Your task to perform on an android device: change notification settings in the gmail app Image 0: 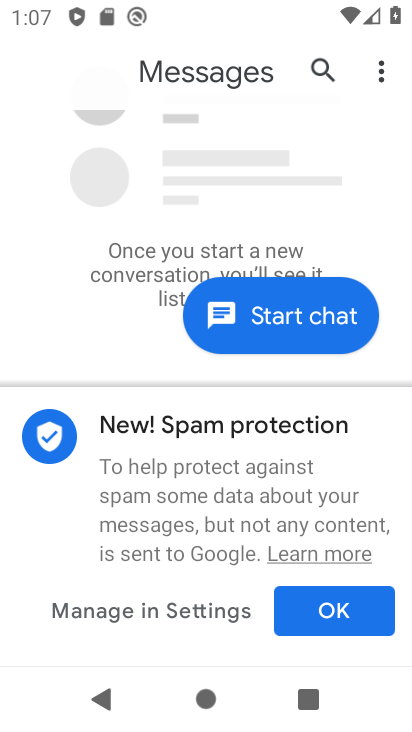
Step 0: press home button
Your task to perform on an android device: change notification settings in the gmail app Image 1: 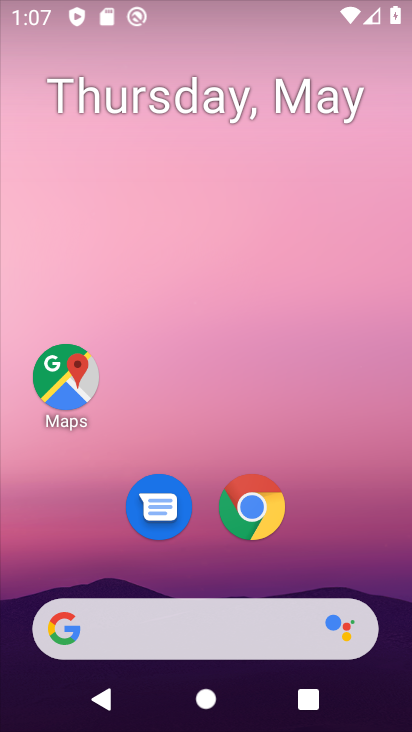
Step 1: drag from (306, 421) to (310, 229)
Your task to perform on an android device: change notification settings in the gmail app Image 2: 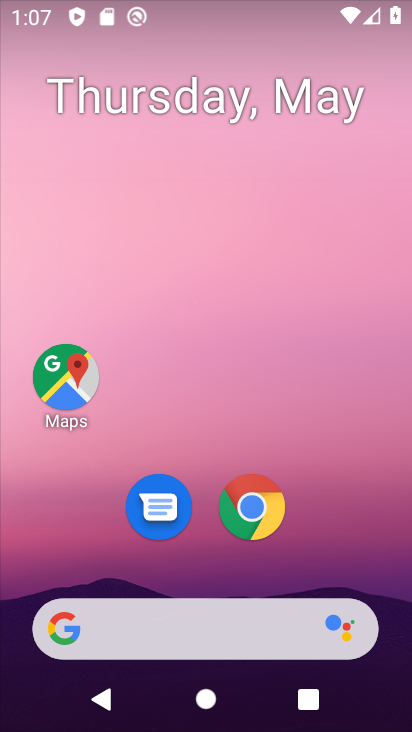
Step 2: drag from (315, 457) to (314, 185)
Your task to perform on an android device: change notification settings in the gmail app Image 3: 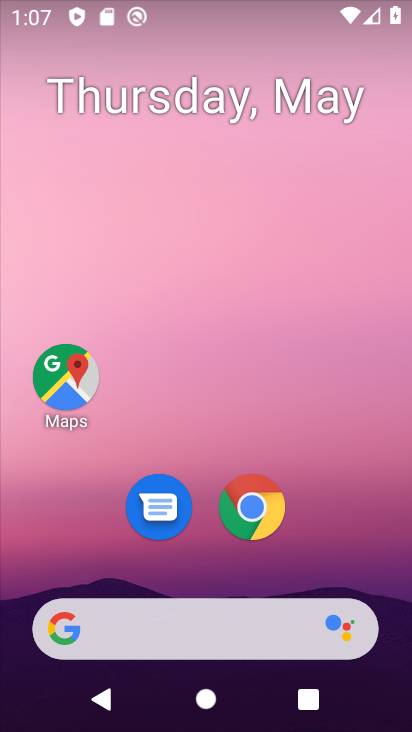
Step 3: drag from (248, 596) to (309, 48)
Your task to perform on an android device: change notification settings in the gmail app Image 4: 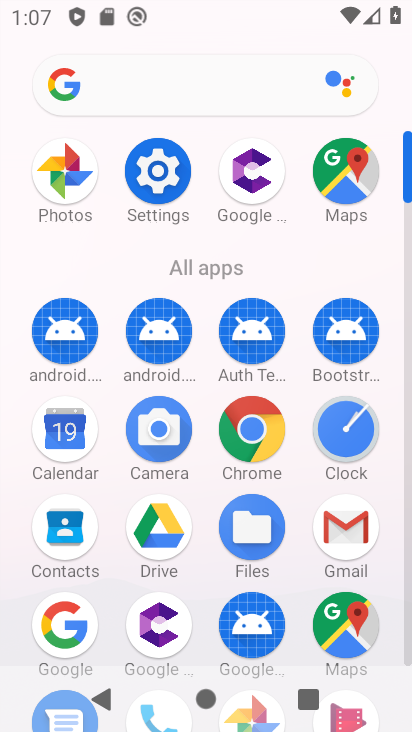
Step 4: click (344, 529)
Your task to perform on an android device: change notification settings in the gmail app Image 5: 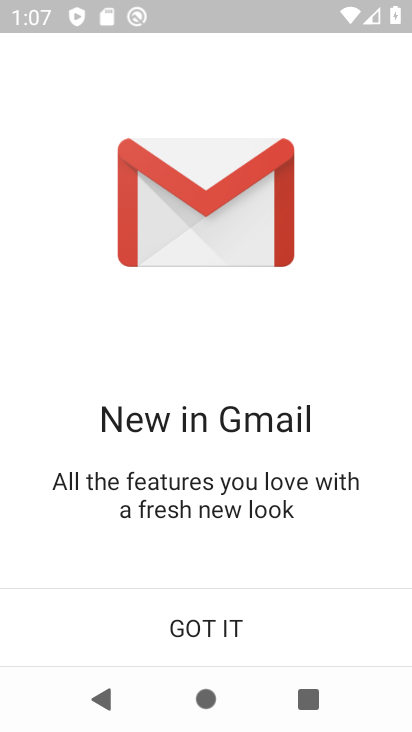
Step 5: click (239, 633)
Your task to perform on an android device: change notification settings in the gmail app Image 6: 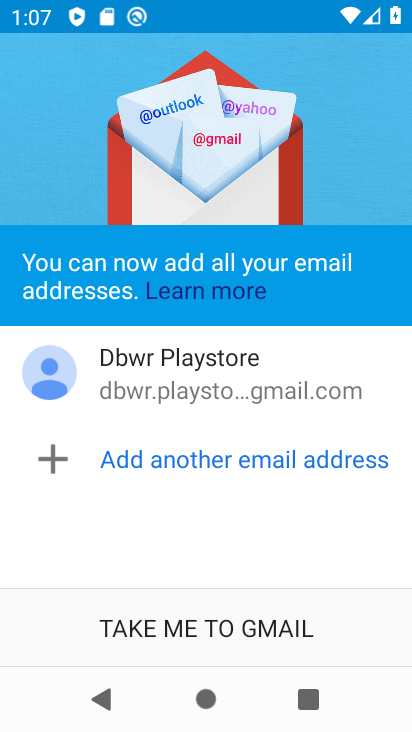
Step 6: click (239, 633)
Your task to perform on an android device: change notification settings in the gmail app Image 7: 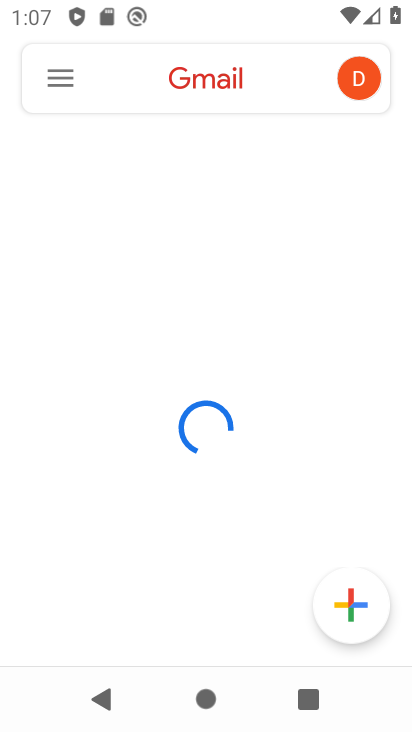
Step 7: click (56, 70)
Your task to perform on an android device: change notification settings in the gmail app Image 8: 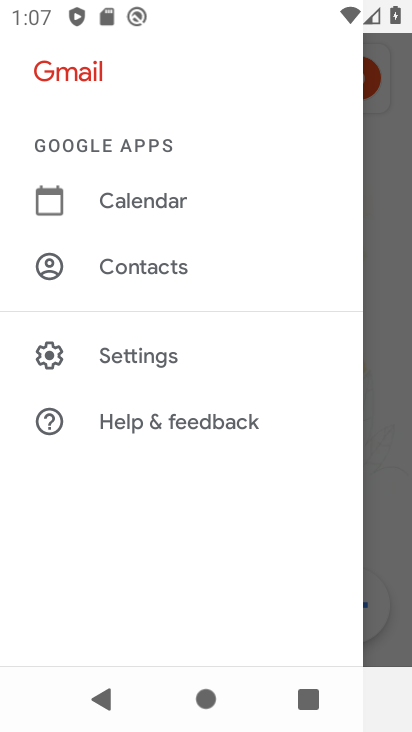
Step 8: click (160, 345)
Your task to perform on an android device: change notification settings in the gmail app Image 9: 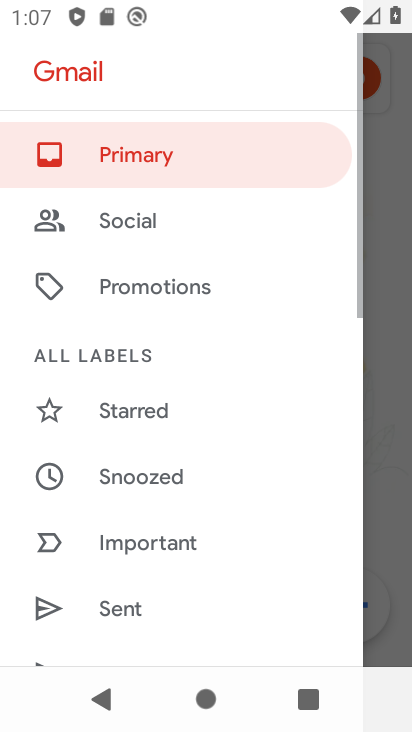
Step 9: drag from (162, 630) to (239, 187)
Your task to perform on an android device: change notification settings in the gmail app Image 10: 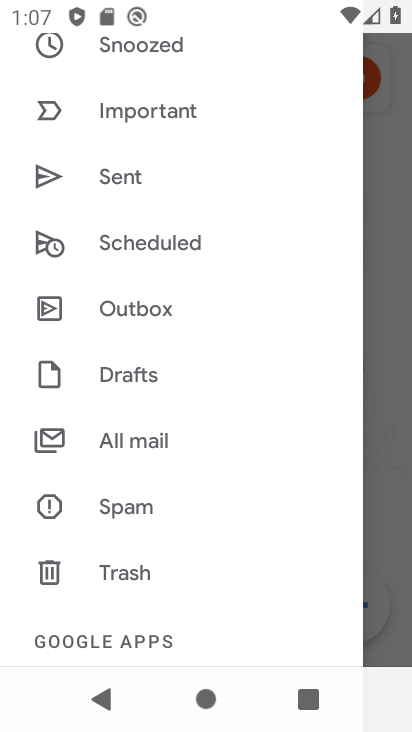
Step 10: drag from (195, 585) to (236, 267)
Your task to perform on an android device: change notification settings in the gmail app Image 11: 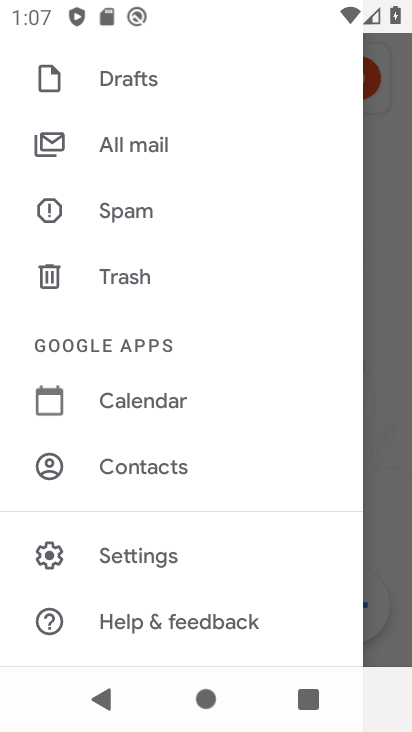
Step 11: click (143, 548)
Your task to perform on an android device: change notification settings in the gmail app Image 12: 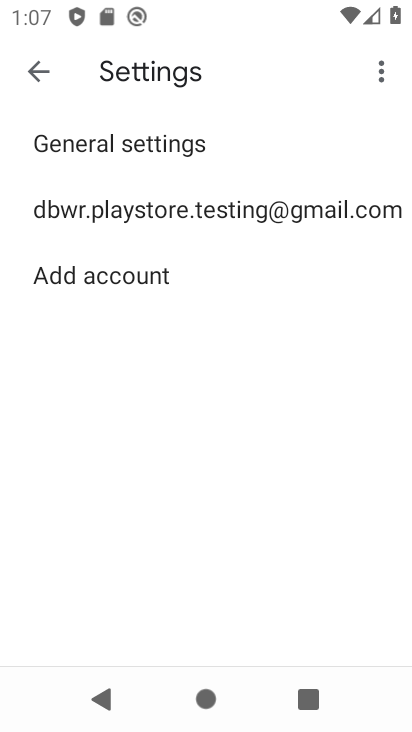
Step 12: click (124, 202)
Your task to perform on an android device: change notification settings in the gmail app Image 13: 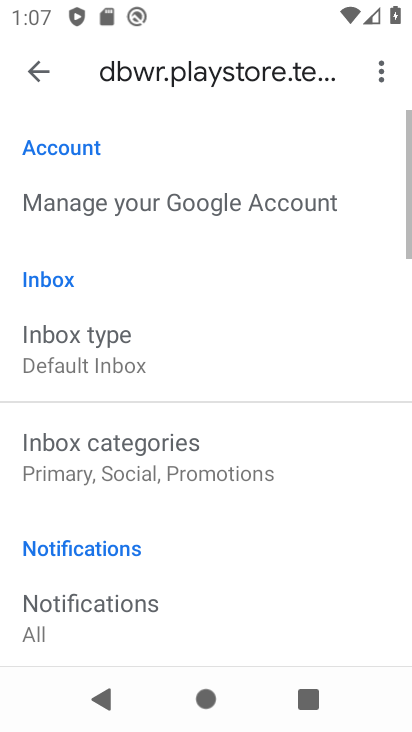
Step 13: drag from (185, 567) to (254, 300)
Your task to perform on an android device: change notification settings in the gmail app Image 14: 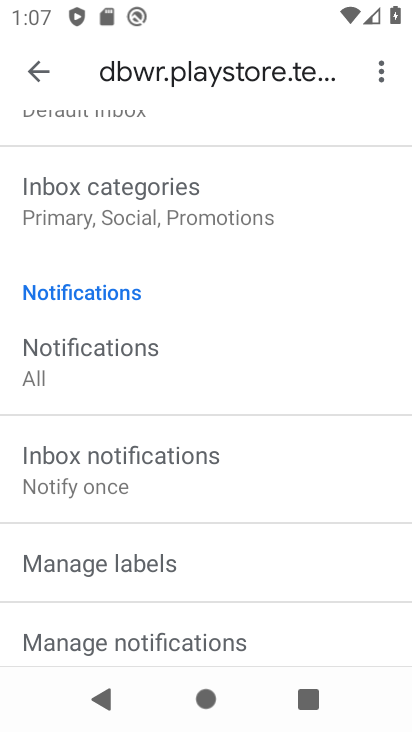
Step 14: click (116, 364)
Your task to perform on an android device: change notification settings in the gmail app Image 15: 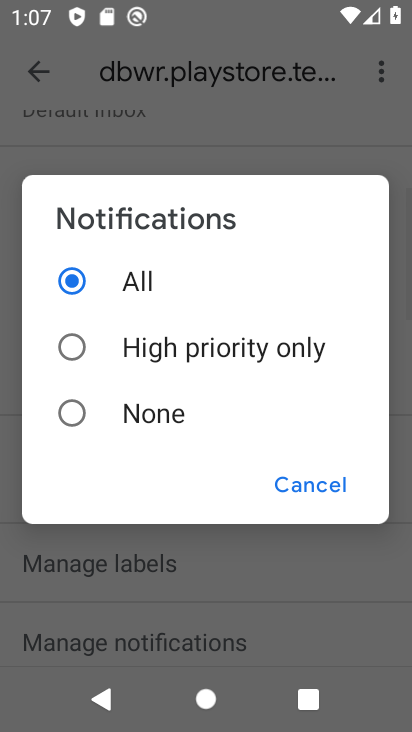
Step 15: click (134, 417)
Your task to perform on an android device: change notification settings in the gmail app Image 16: 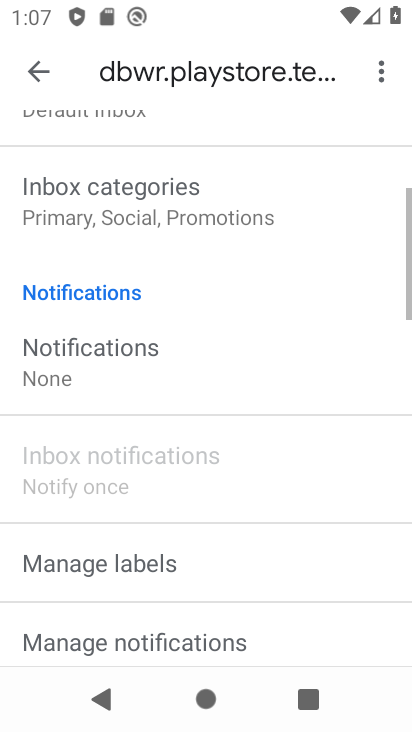
Step 16: task complete